Your task to perform on an android device: What's on my calendar today? Image 0: 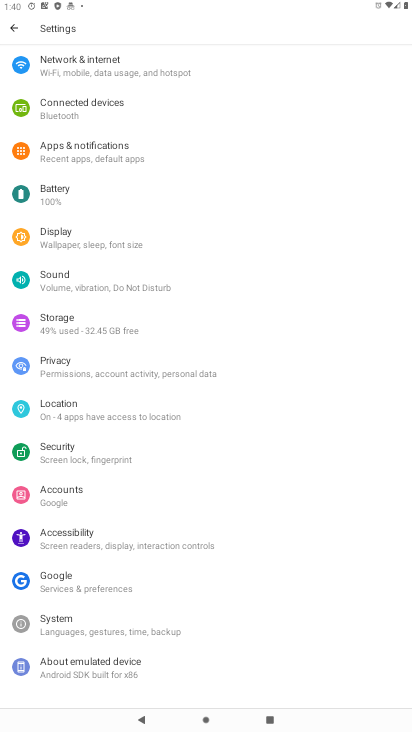
Step 0: press home button
Your task to perform on an android device: What's on my calendar today? Image 1: 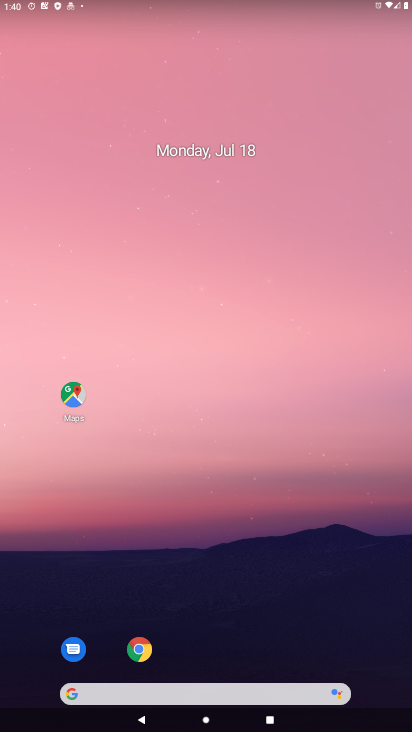
Step 1: drag from (227, 670) to (243, 13)
Your task to perform on an android device: What's on my calendar today? Image 2: 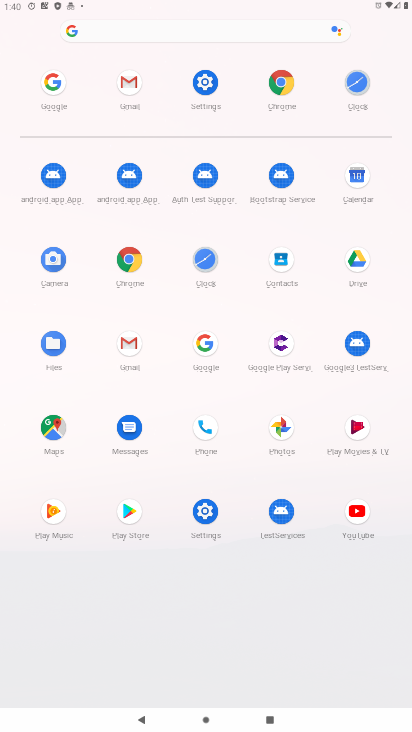
Step 2: click (355, 179)
Your task to perform on an android device: What's on my calendar today? Image 3: 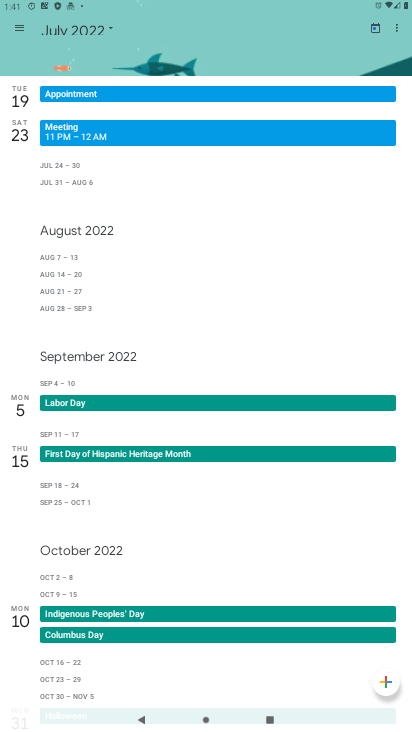
Step 3: click (376, 24)
Your task to perform on an android device: What's on my calendar today? Image 4: 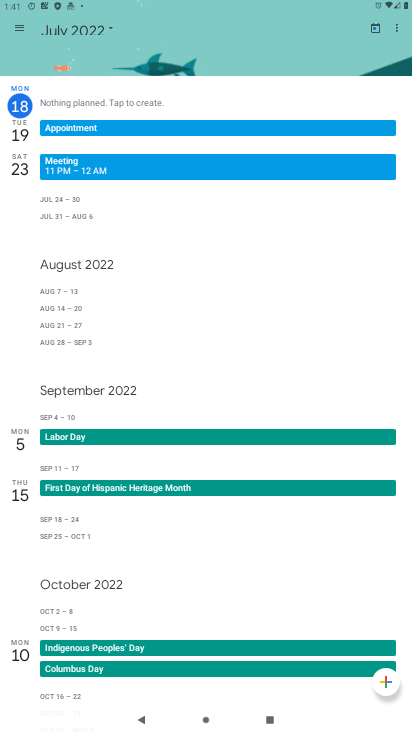
Step 4: click (16, 104)
Your task to perform on an android device: What's on my calendar today? Image 5: 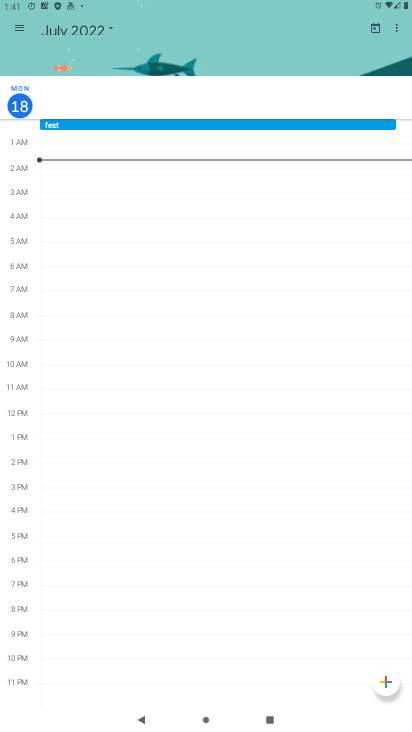
Step 5: task complete